Your task to perform on an android device: turn on the 24-hour format for clock Image 0: 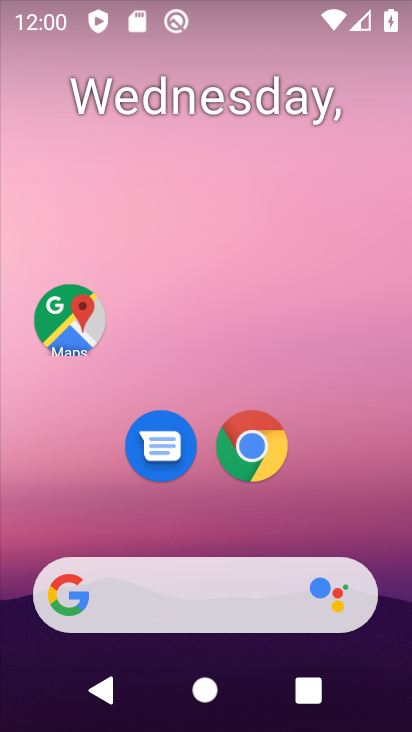
Step 0: drag from (243, 604) to (190, 236)
Your task to perform on an android device: turn on the 24-hour format for clock Image 1: 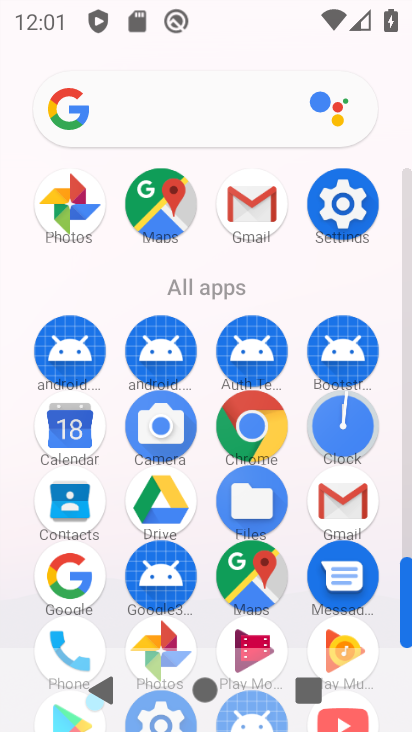
Step 1: click (349, 423)
Your task to perform on an android device: turn on the 24-hour format for clock Image 2: 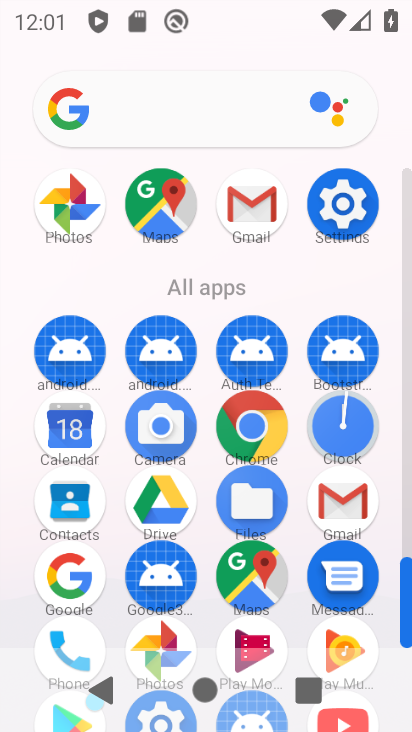
Step 2: click (349, 423)
Your task to perform on an android device: turn on the 24-hour format for clock Image 3: 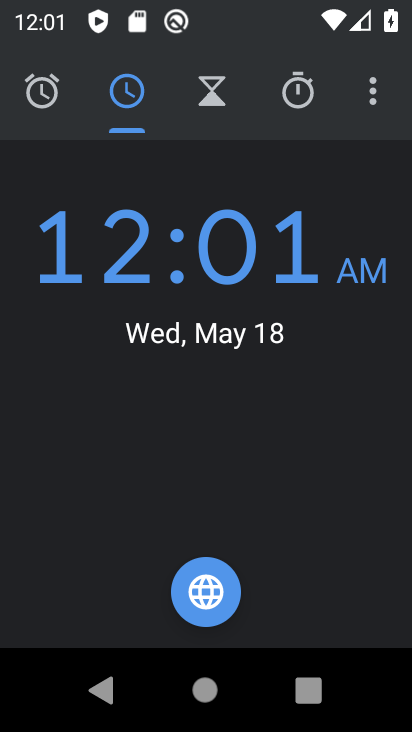
Step 3: click (381, 77)
Your task to perform on an android device: turn on the 24-hour format for clock Image 4: 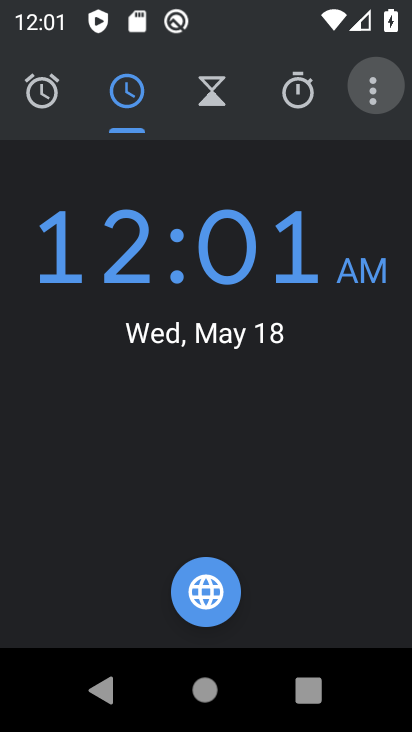
Step 4: click (374, 91)
Your task to perform on an android device: turn on the 24-hour format for clock Image 5: 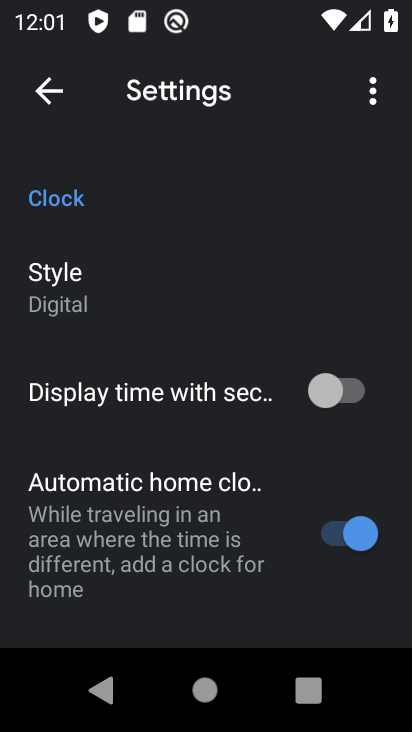
Step 5: click (112, 289)
Your task to perform on an android device: turn on the 24-hour format for clock Image 6: 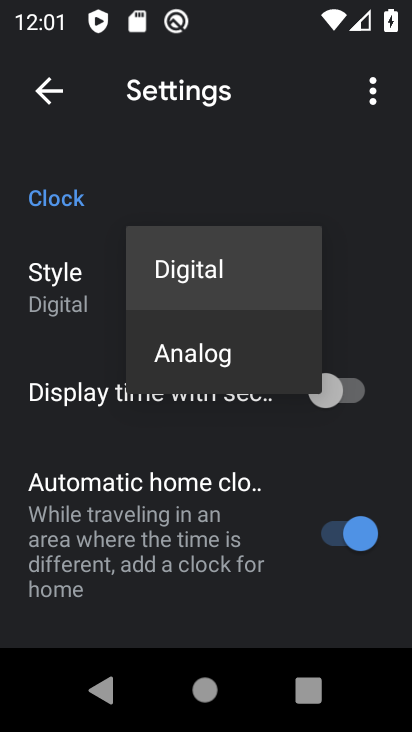
Step 6: click (248, 157)
Your task to perform on an android device: turn on the 24-hour format for clock Image 7: 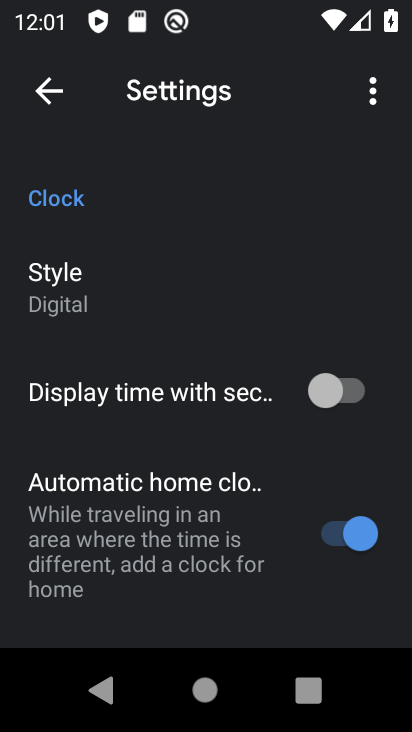
Step 7: drag from (300, 513) to (249, 108)
Your task to perform on an android device: turn on the 24-hour format for clock Image 8: 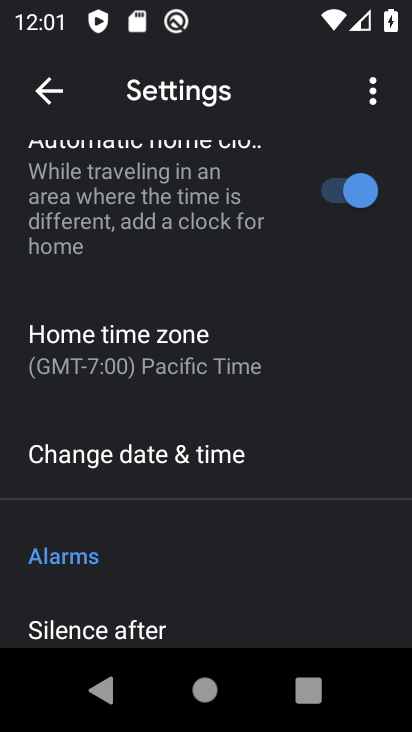
Step 8: drag from (200, 505) to (211, 221)
Your task to perform on an android device: turn on the 24-hour format for clock Image 9: 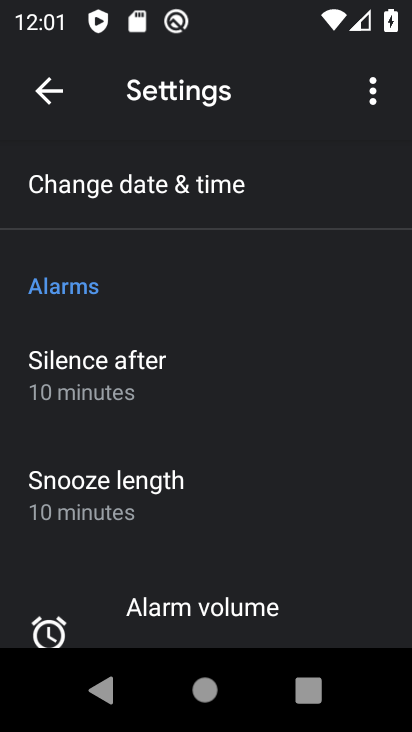
Step 9: drag from (195, 529) to (172, 233)
Your task to perform on an android device: turn on the 24-hour format for clock Image 10: 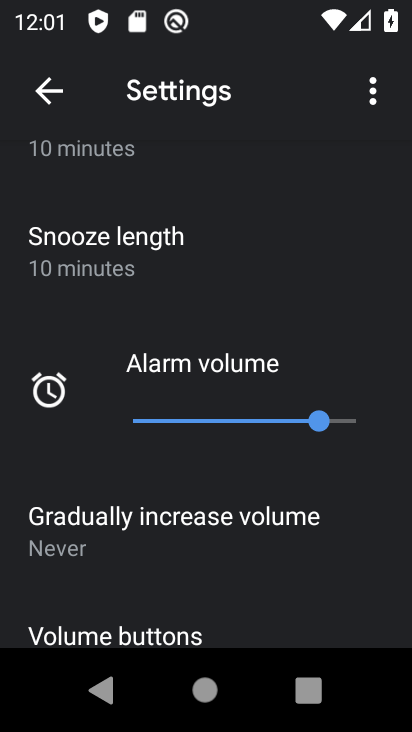
Step 10: drag from (207, 524) to (176, 111)
Your task to perform on an android device: turn on the 24-hour format for clock Image 11: 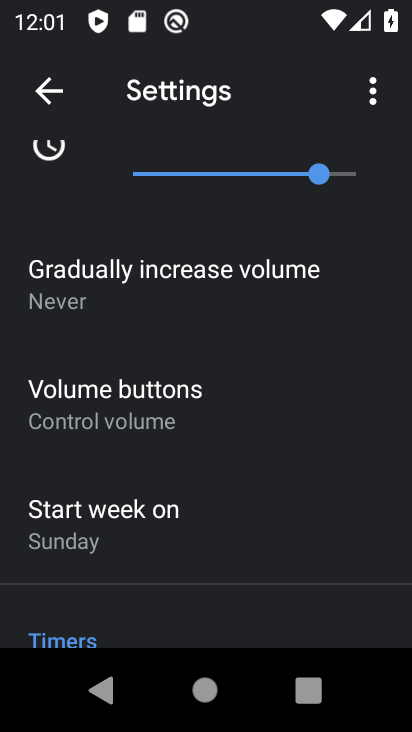
Step 11: drag from (181, 475) to (171, 71)
Your task to perform on an android device: turn on the 24-hour format for clock Image 12: 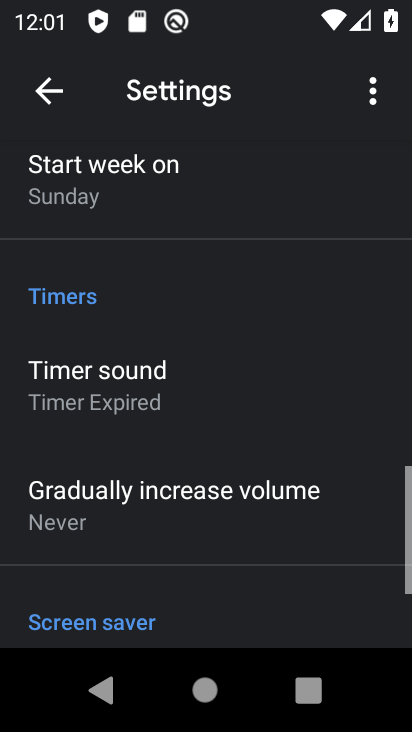
Step 12: drag from (217, 380) to (200, 154)
Your task to perform on an android device: turn on the 24-hour format for clock Image 13: 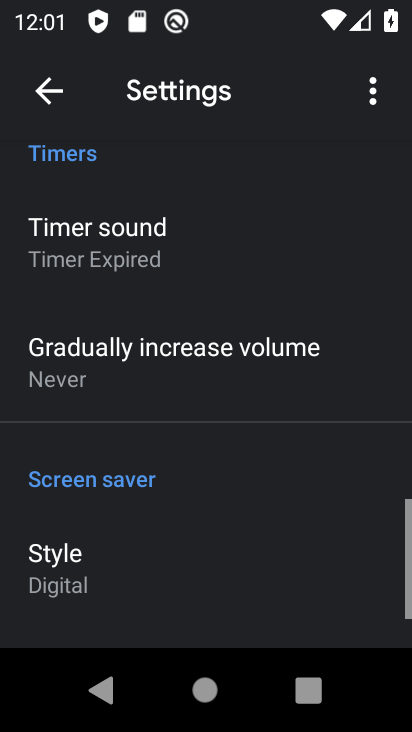
Step 13: drag from (172, 510) to (134, 87)
Your task to perform on an android device: turn on the 24-hour format for clock Image 14: 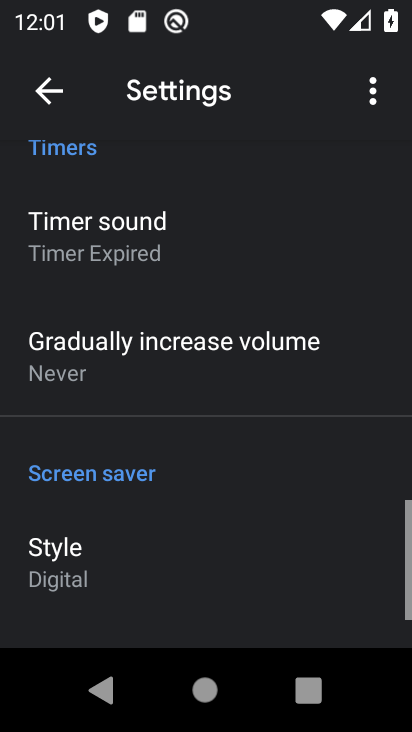
Step 14: drag from (205, 403) to (181, 30)
Your task to perform on an android device: turn on the 24-hour format for clock Image 15: 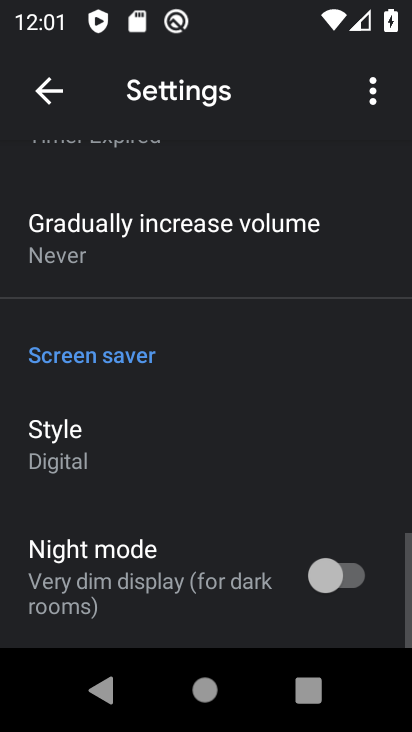
Step 15: drag from (171, 424) to (123, 114)
Your task to perform on an android device: turn on the 24-hour format for clock Image 16: 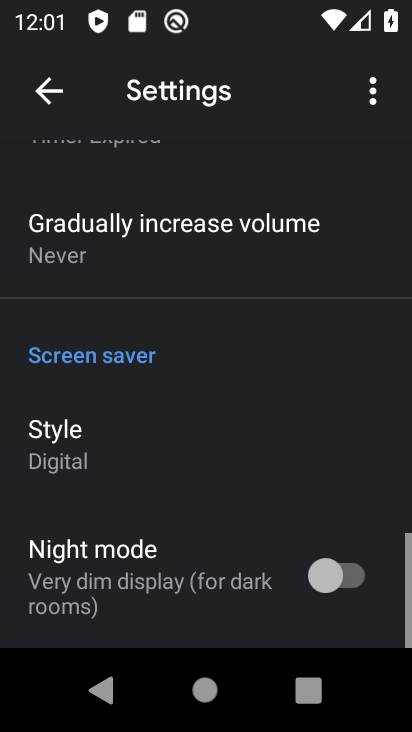
Step 16: drag from (179, 487) to (125, 20)
Your task to perform on an android device: turn on the 24-hour format for clock Image 17: 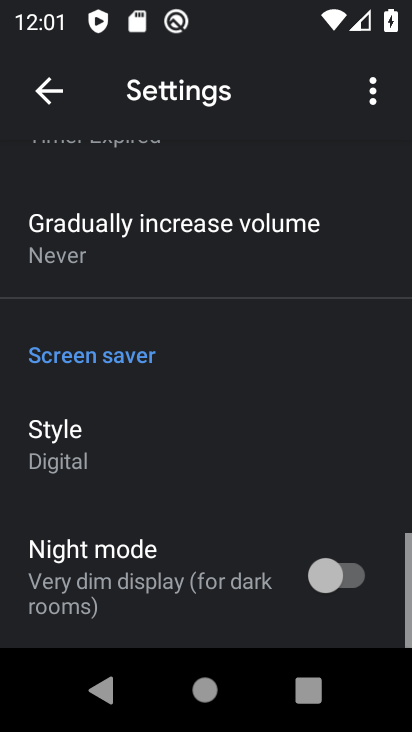
Step 17: drag from (241, 465) to (219, 27)
Your task to perform on an android device: turn on the 24-hour format for clock Image 18: 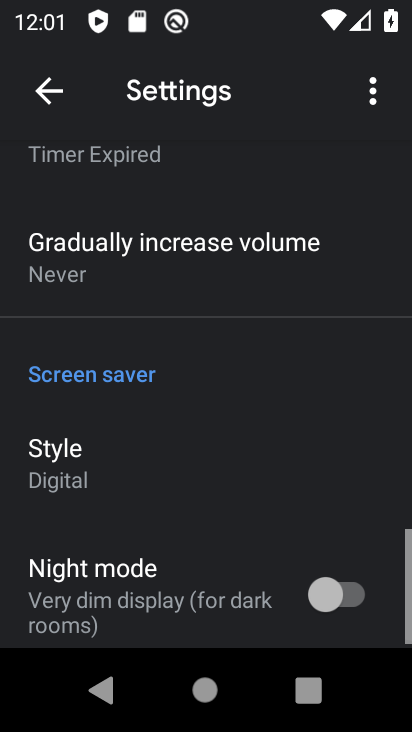
Step 18: drag from (241, 524) to (217, 83)
Your task to perform on an android device: turn on the 24-hour format for clock Image 19: 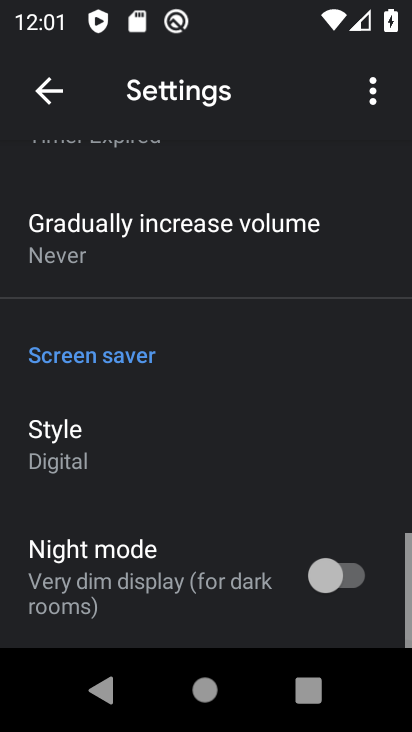
Step 19: drag from (141, 455) to (140, 44)
Your task to perform on an android device: turn on the 24-hour format for clock Image 20: 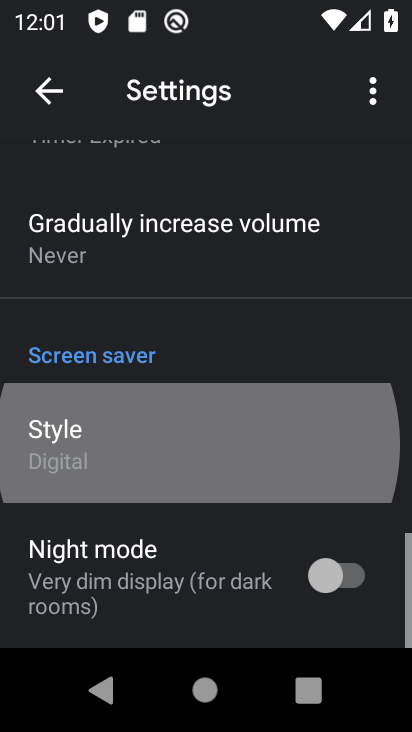
Step 20: drag from (216, 529) to (195, 130)
Your task to perform on an android device: turn on the 24-hour format for clock Image 21: 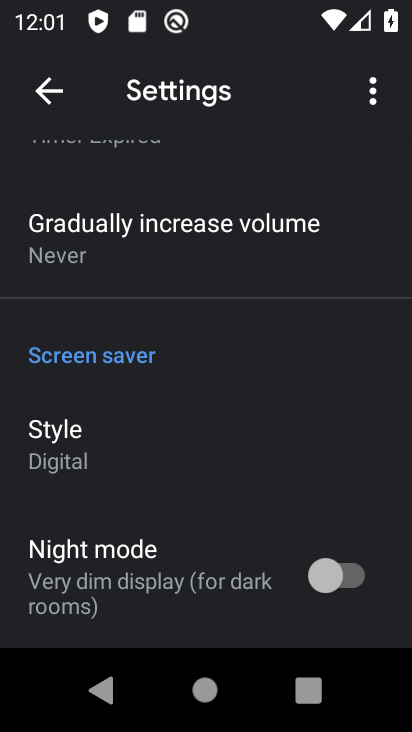
Step 21: drag from (135, 293) to (234, 614)
Your task to perform on an android device: turn on the 24-hour format for clock Image 22: 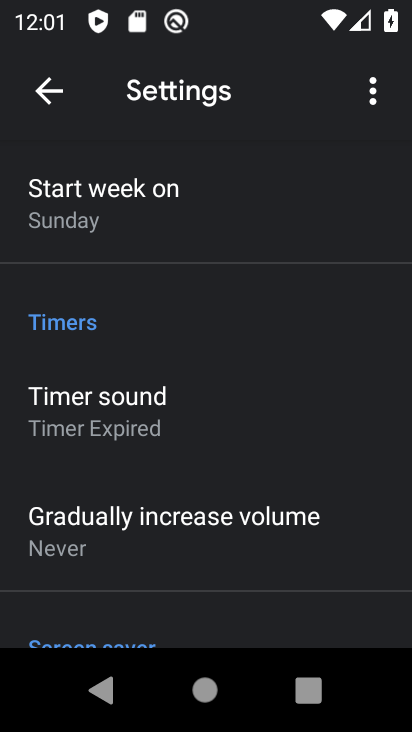
Step 22: drag from (143, 281) to (227, 648)
Your task to perform on an android device: turn on the 24-hour format for clock Image 23: 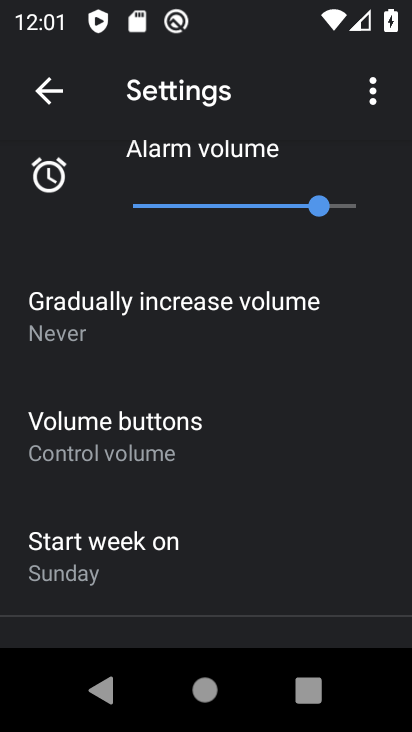
Step 23: drag from (138, 234) to (244, 575)
Your task to perform on an android device: turn on the 24-hour format for clock Image 24: 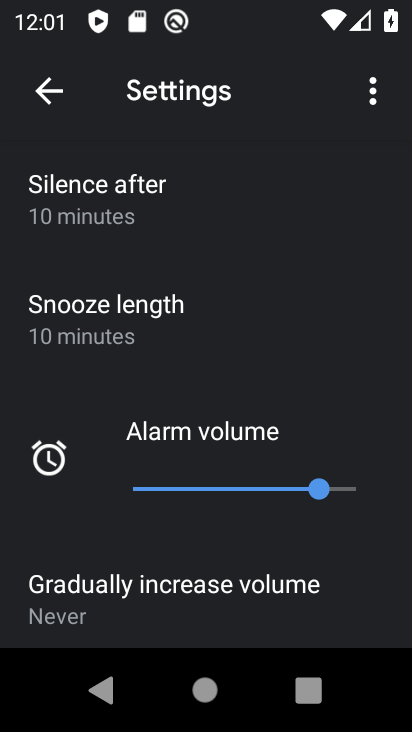
Step 24: drag from (200, 287) to (314, 640)
Your task to perform on an android device: turn on the 24-hour format for clock Image 25: 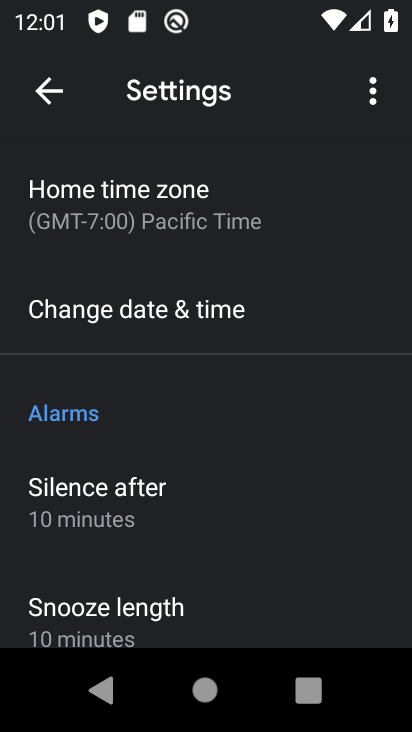
Step 25: click (160, 303)
Your task to perform on an android device: turn on the 24-hour format for clock Image 26: 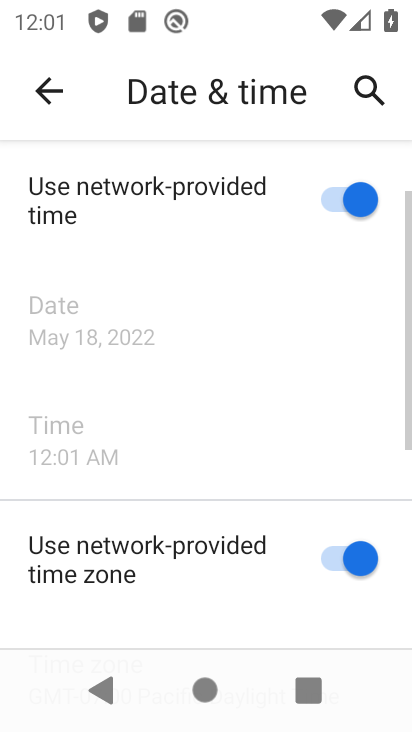
Step 26: drag from (253, 505) to (201, 81)
Your task to perform on an android device: turn on the 24-hour format for clock Image 27: 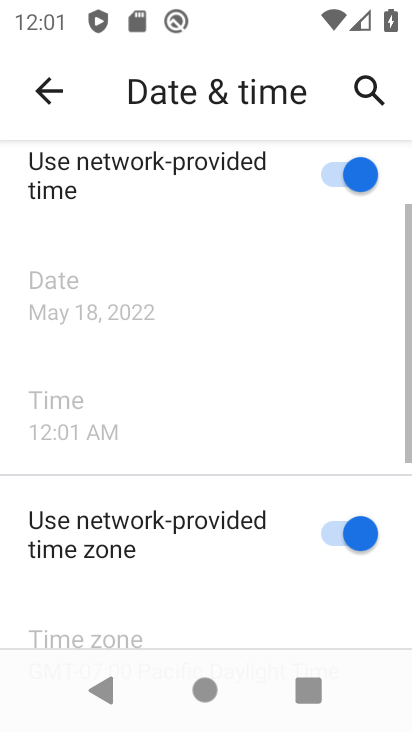
Step 27: drag from (223, 421) to (176, 89)
Your task to perform on an android device: turn on the 24-hour format for clock Image 28: 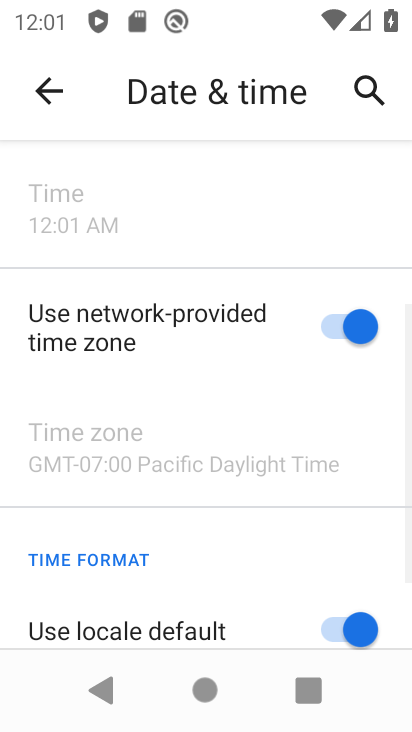
Step 28: drag from (244, 346) to (237, 133)
Your task to perform on an android device: turn on the 24-hour format for clock Image 29: 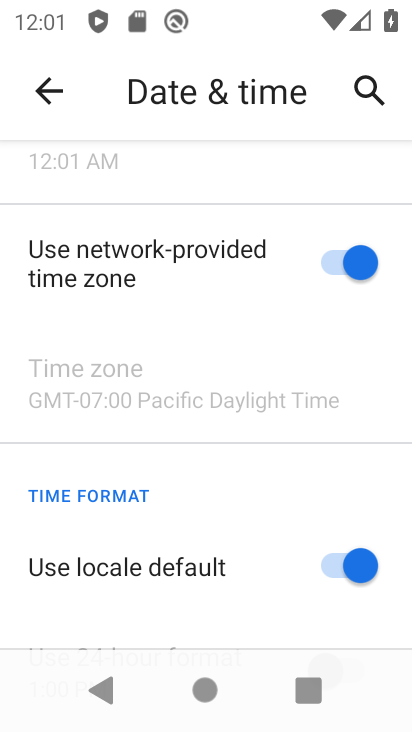
Step 29: drag from (302, 522) to (294, 177)
Your task to perform on an android device: turn on the 24-hour format for clock Image 30: 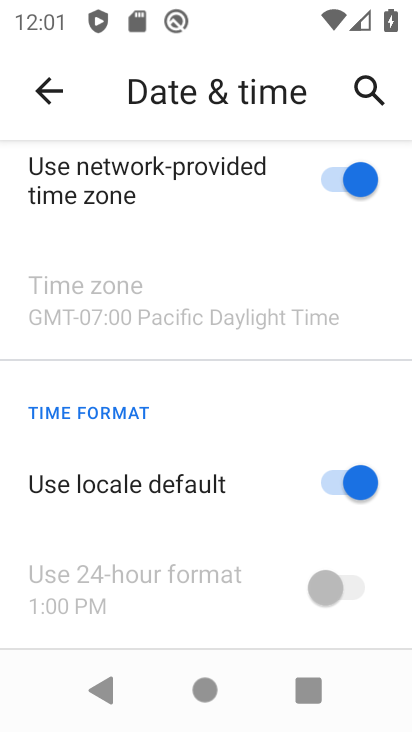
Step 30: click (354, 472)
Your task to perform on an android device: turn on the 24-hour format for clock Image 31: 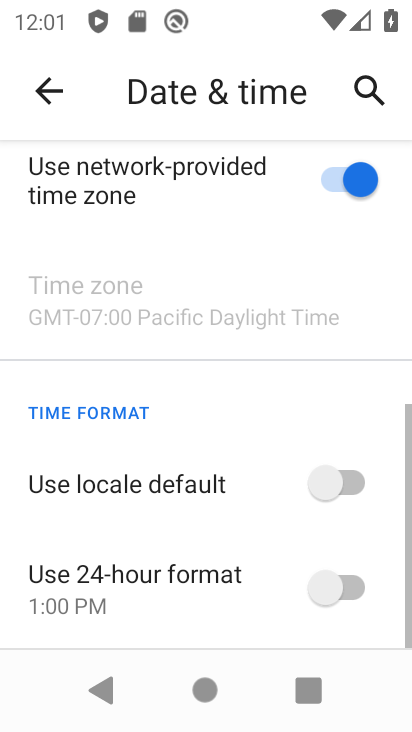
Step 31: click (341, 586)
Your task to perform on an android device: turn on the 24-hour format for clock Image 32: 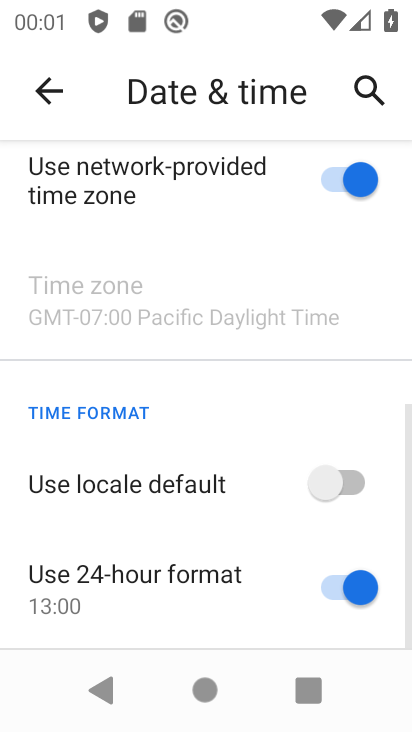
Step 32: task complete